Your task to perform on an android device: Show me recent news Image 0: 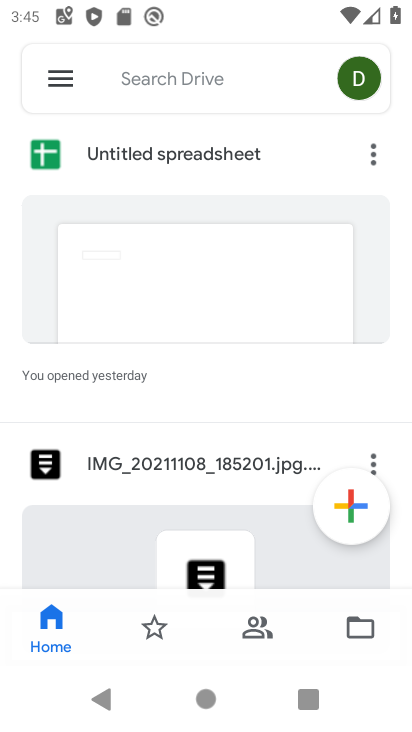
Step 0: press home button
Your task to perform on an android device: Show me recent news Image 1: 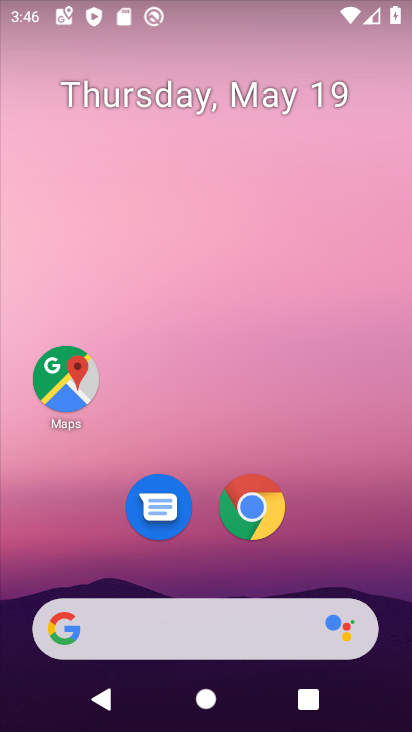
Step 1: drag from (407, 577) to (410, 13)
Your task to perform on an android device: Show me recent news Image 2: 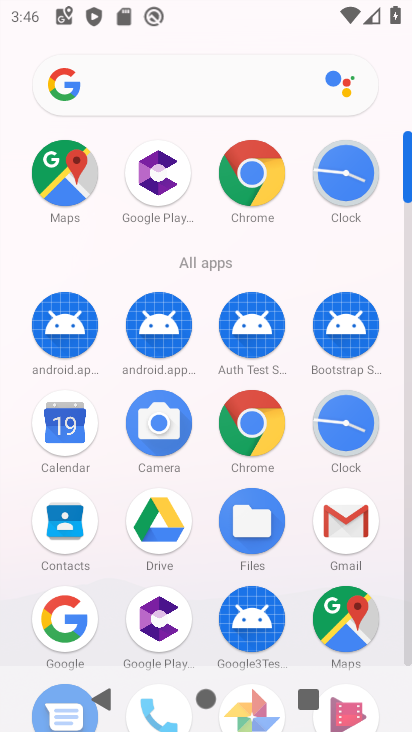
Step 2: click (27, 622)
Your task to perform on an android device: Show me recent news Image 3: 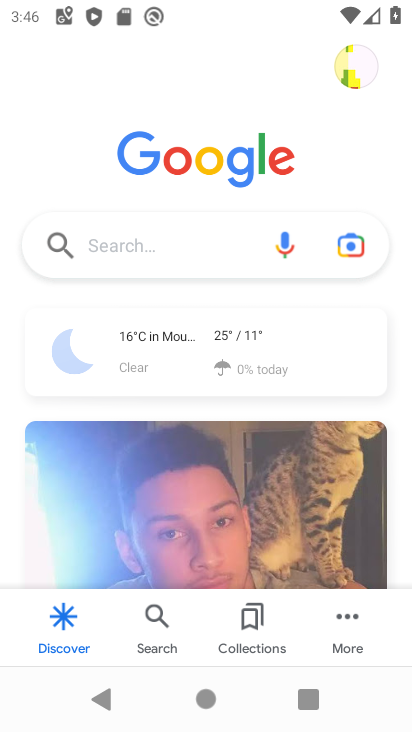
Step 3: task complete